Your task to perform on an android device: turn off location history Image 0: 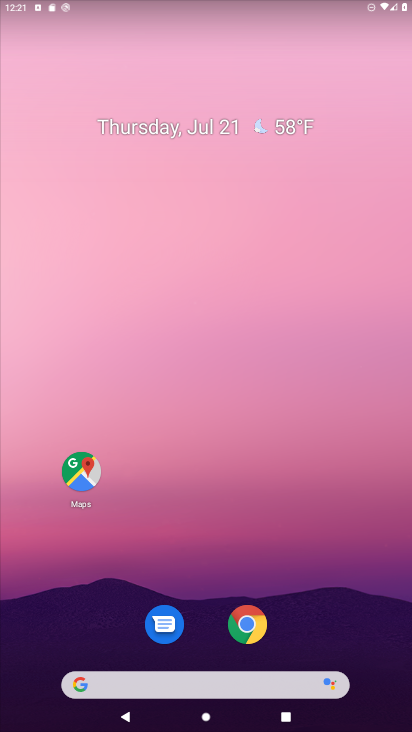
Step 0: drag from (198, 593) to (215, 181)
Your task to perform on an android device: turn off location history Image 1: 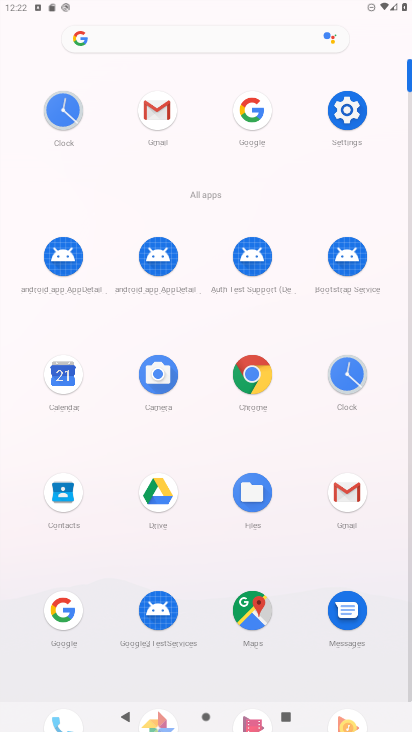
Step 1: click (343, 128)
Your task to perform on an android device: turn off location history Image 2: 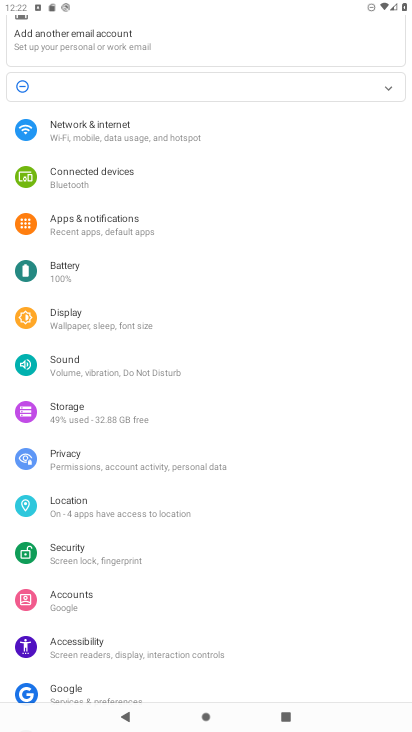
Step 2: click (117, 498)
Your task to perform on an android device: turn off location history Image 3: 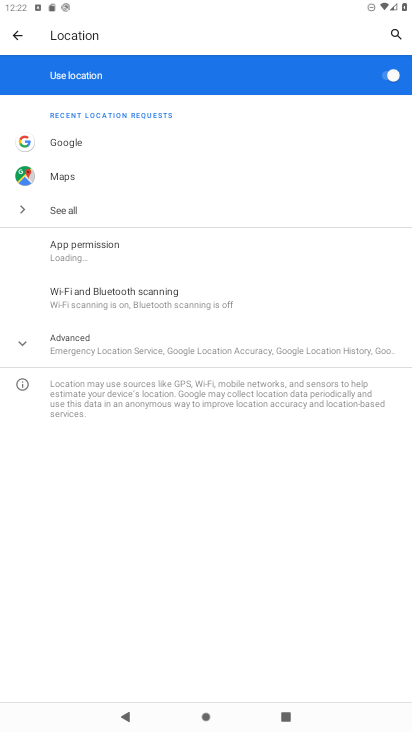
Step 3: click (109, 359)
Your task to perform on an android device: turn off location history Image 4: 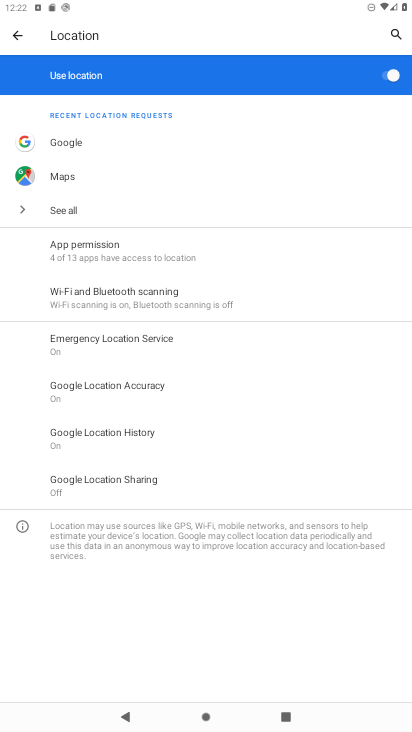
Step 4: click (178, 431)
Your task to perform on an android device: turn off location history Image 5: 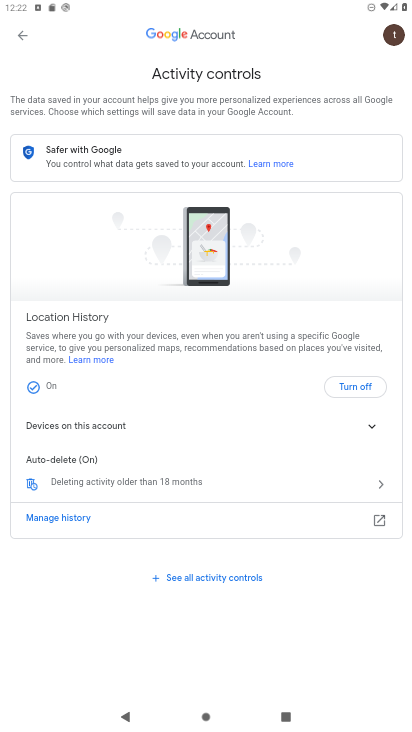
Step 5: click (337, 387)
Your task to perform on an android device: turn off location history Image 6: 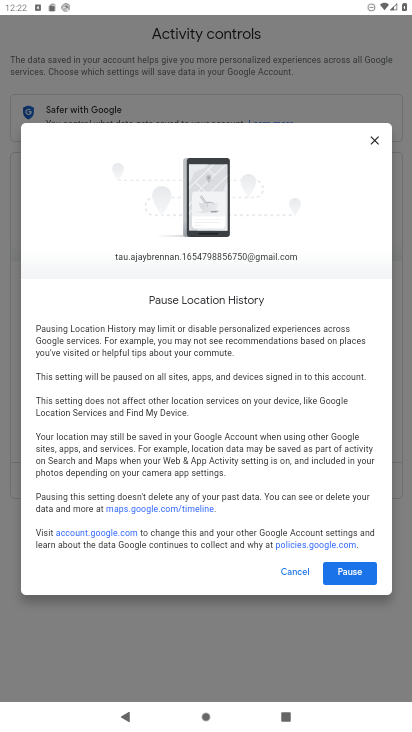
Step 6: click (344, 566)
Your task to perform on an android device: turn off location history Image 7: 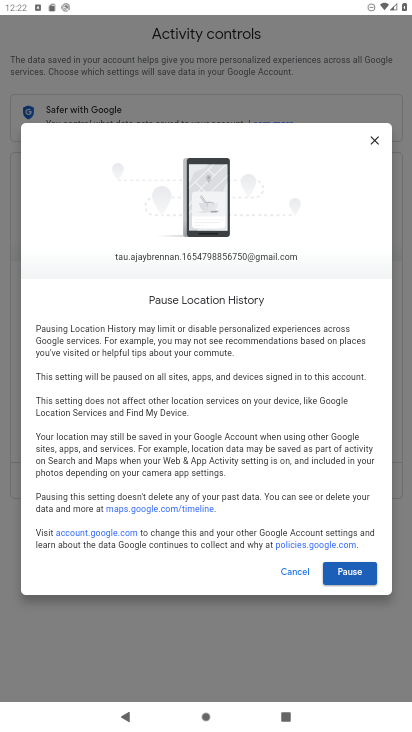
Step 7: click (354, 583)
Your task to perform on an android device: turn off location history Image 8: 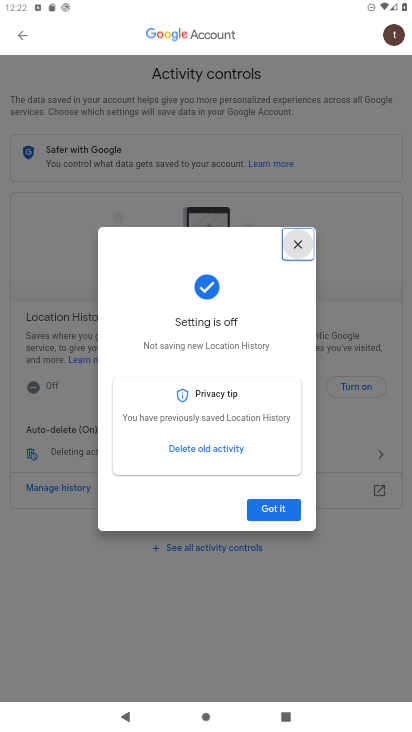
Step 8: click (267, 498)
Your task to perform on an android device: turn off location history Image 9: 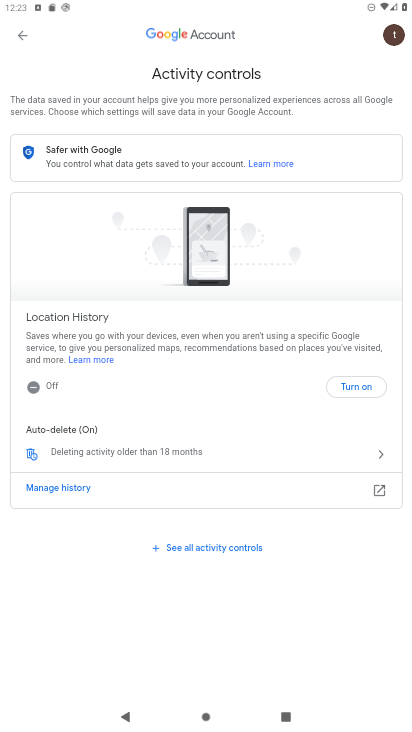
Step 9: task complete